Your task to perform on an android device: What's on my calendar today? Image 0: 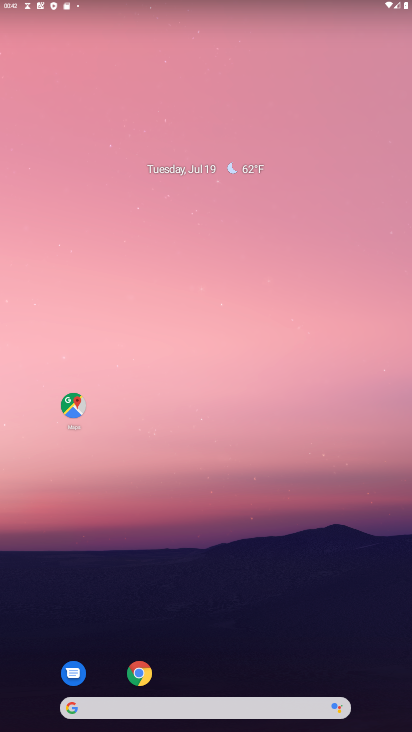
Step 0: drag from (264, 648) to (257, 143)
Your task to perform on an android device: What's on my calendar today? Image 1: 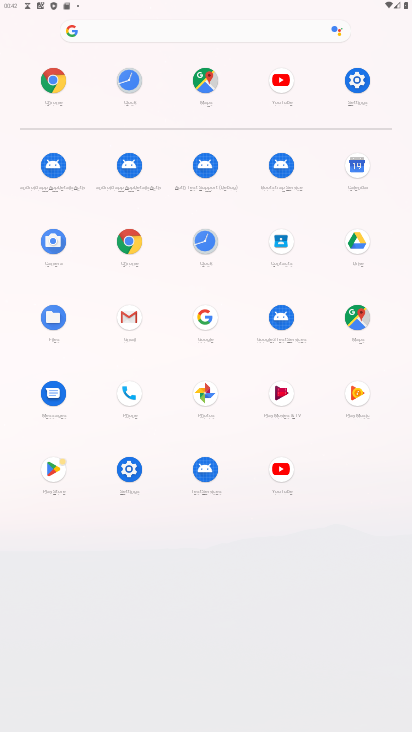
Step 1: click (363, 167)
Your task to perform on an android device: What's on my calendar today? Image 2: 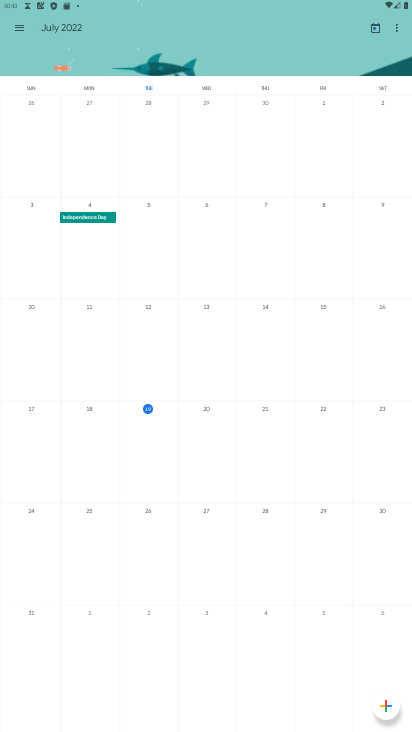
Step 2: task complete